Your task to perform on an android device: Open calendar and show me the first week of next month Image 0: 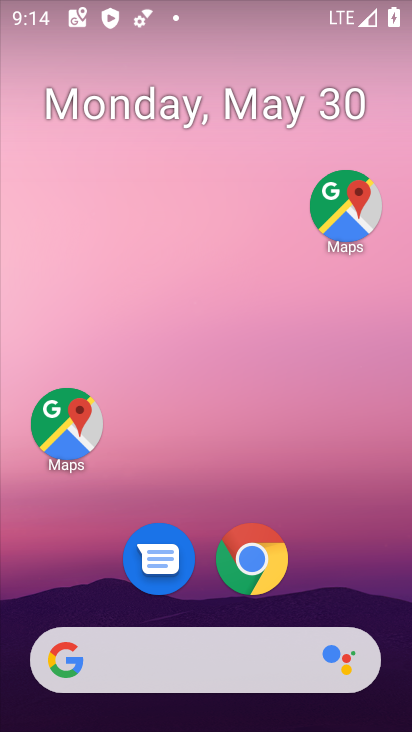
Step 0: drag from (336, 584) to (328, 128)
Your task to perform on an android device: Open calendar and show me the first week of next month Image 1: 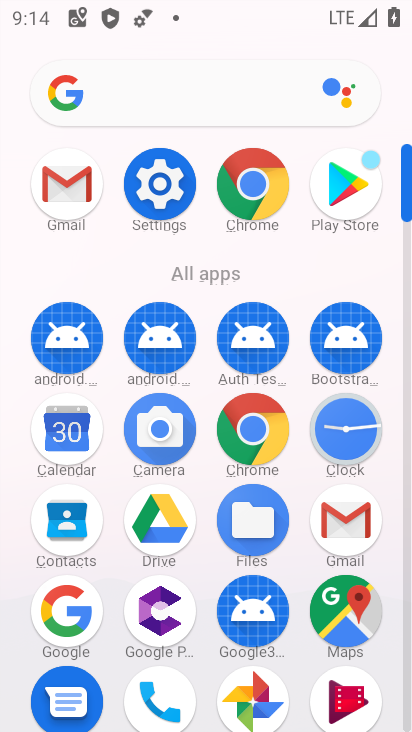
Step 1: click (66, 444)
Your task to perform on an android device: Open calendar and show me the first week of next month Image 2: 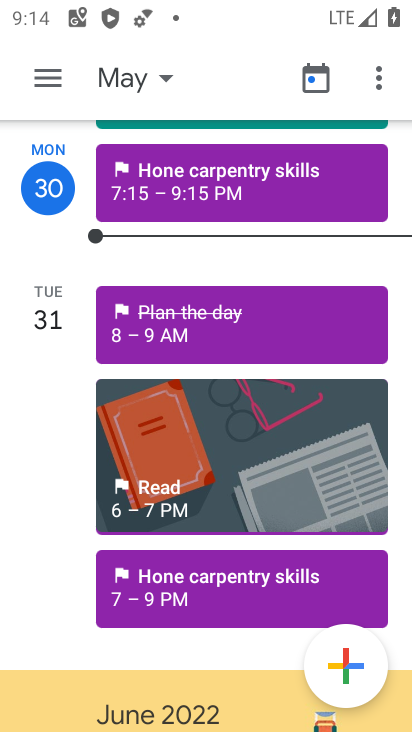
Step 2: click (139, 70)
Your task to perform on an android device: Open calendar and show me the first week of next month Image 3: 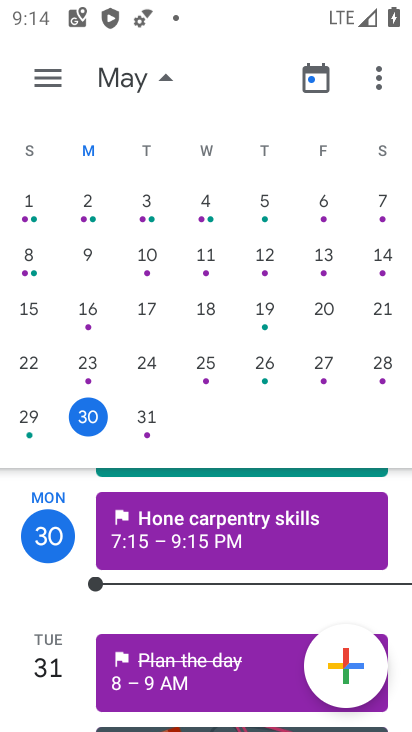
Step 3: drag from (391, 321) to (35, 316)
Your task to perform on an android device: Open calendar and show me the first week of next month Image 4: 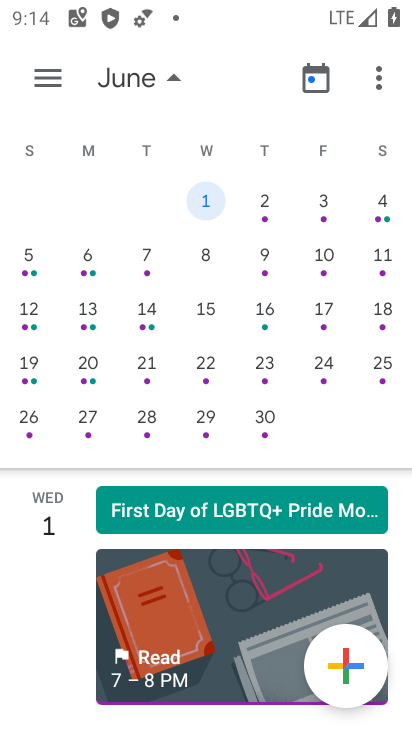
Step 4: click (30, 265)
Your task to perform on an android device: Open calendar and show me the first week of next month Image 5: 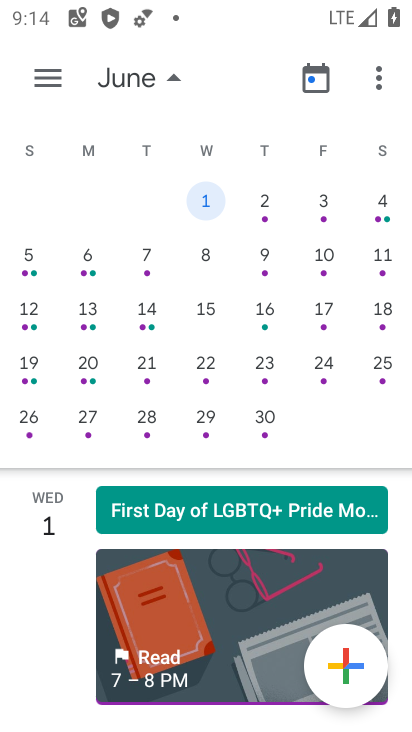
Step 5: click (30, 265)
Your task to perform on an android device: Open calendar and show me the first week of next month Image 6: 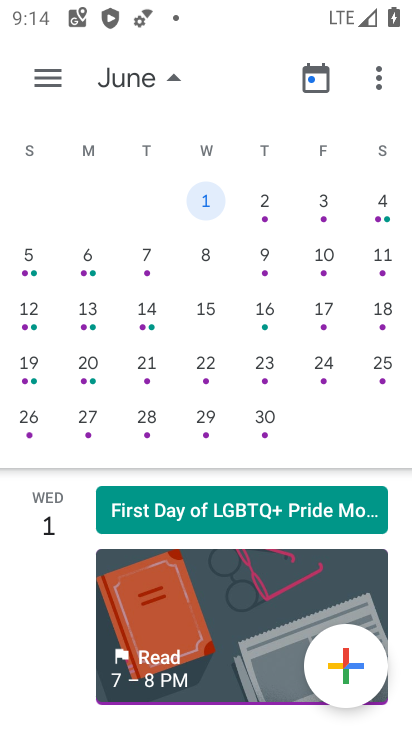
Step 6: click (120, 266)
Your task to perform on an android device: Open calendar and show me the first week of next month Image 7: 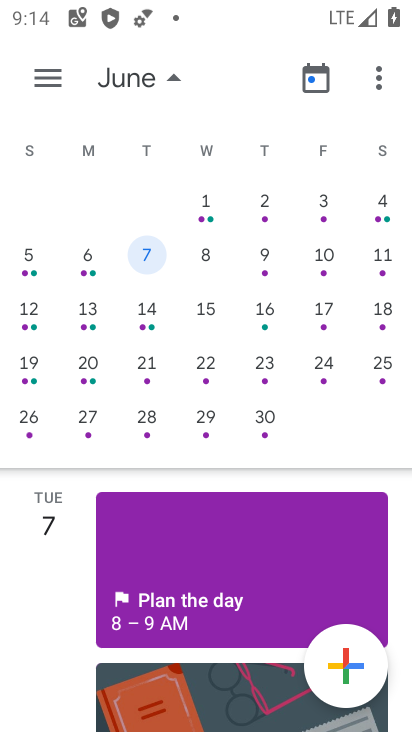
Step 7: click (150, 252)
Your task to perform on an android device: Open calendar and show me the first week of next month Image 8: 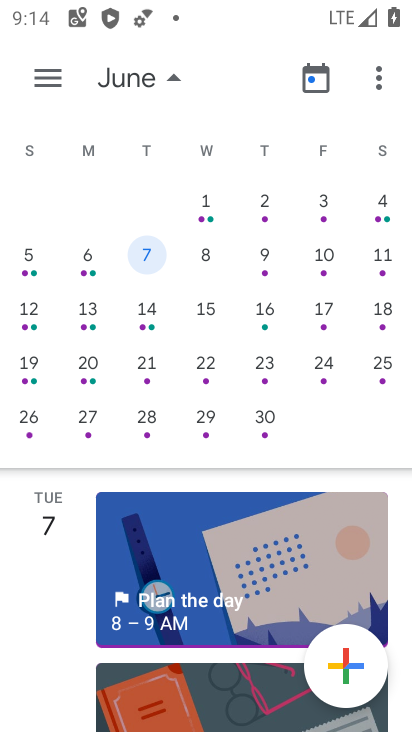
Step 8: click (34, 265)
Your task to perform on an android device: Open calendar and show me the first week of next month Image 9: 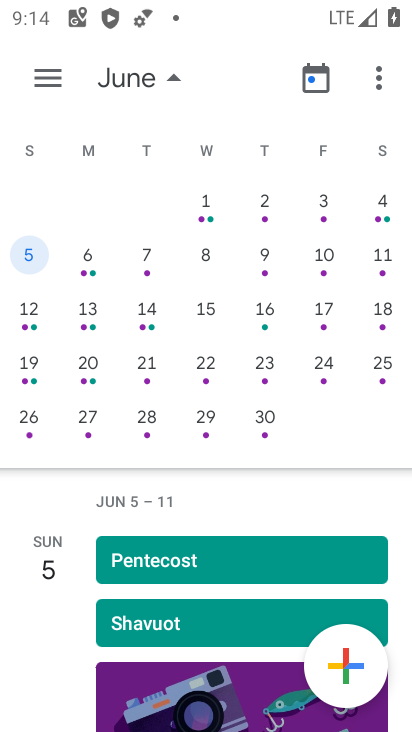
Step 9: click (35, 264)
Your task to perform on an android device: Open calendar and show me the first week of next month Image 10: 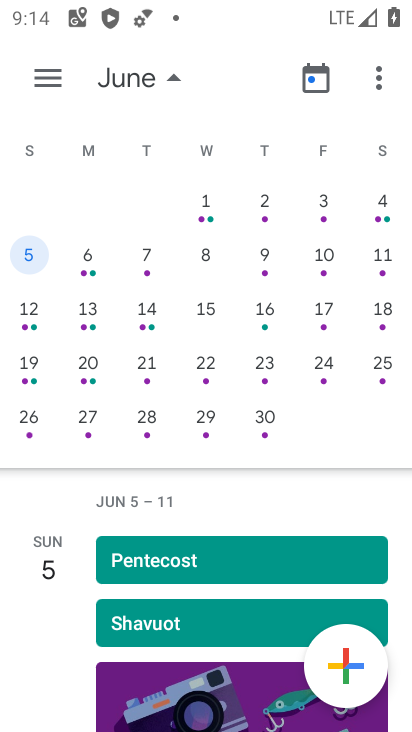
Step 10: click (123, 81)
Your task to perform on an android device: Open calendar and show me the first week of next month Image 11: 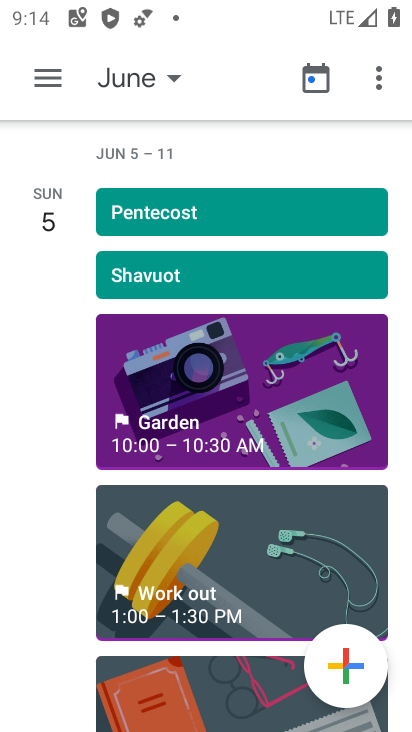
Step 11: click (46, 67)
Your task to perform on an android device: Open calendar and show me the first week of next month Image 12: 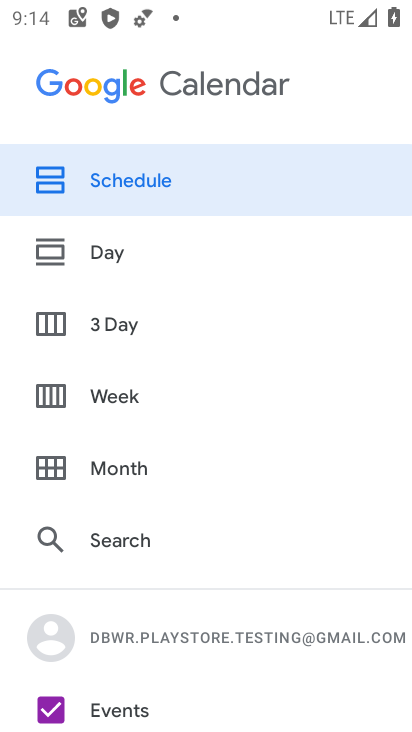
Step 12: click (103, 388)
Your task to perform on an android device: Open calendar and show me the first week of next month Image 13: 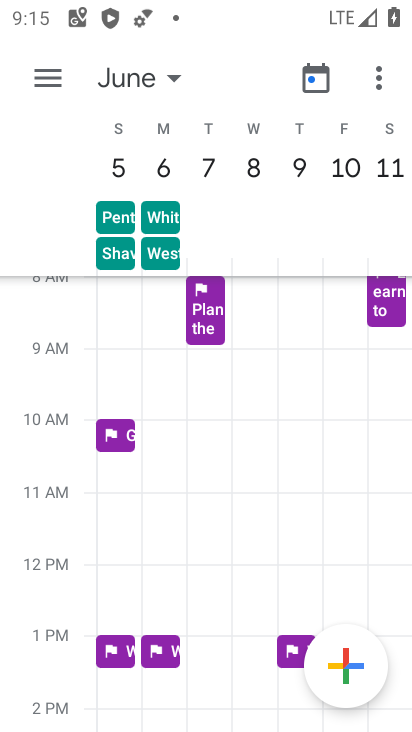
Step 13: task complete